Your task to perform on an android device: delete browsing data in the chrome app Image 0: 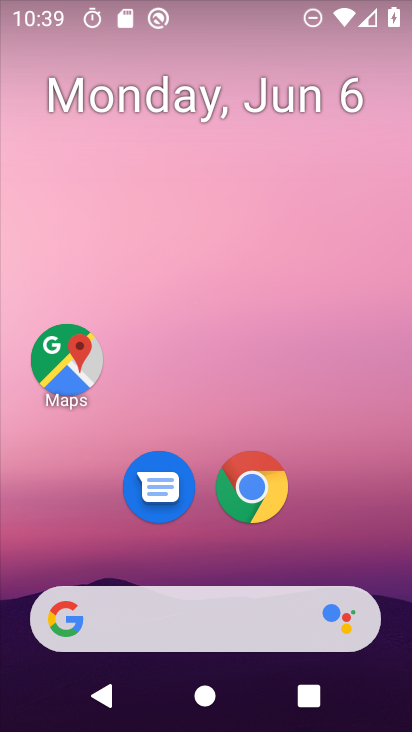
Step 0: drag from (384, 638) to (252, 78)
Your task to perform on an android device: delete browsing data in the chrome app Image 1: 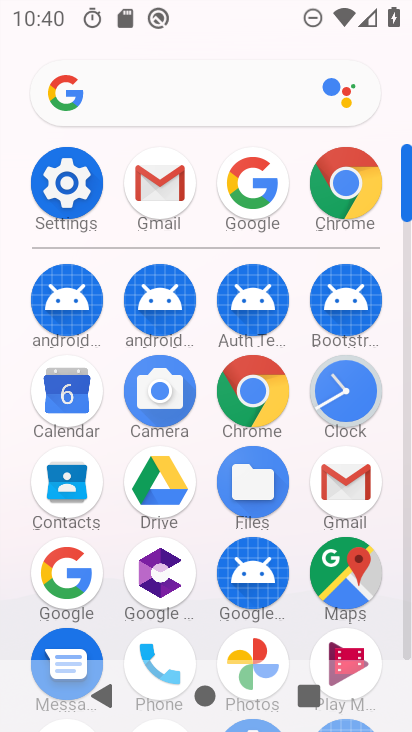
Step 1: click (227, 404)
Your task to perform on an android device: delete browsing data in the chrome app Image 2: 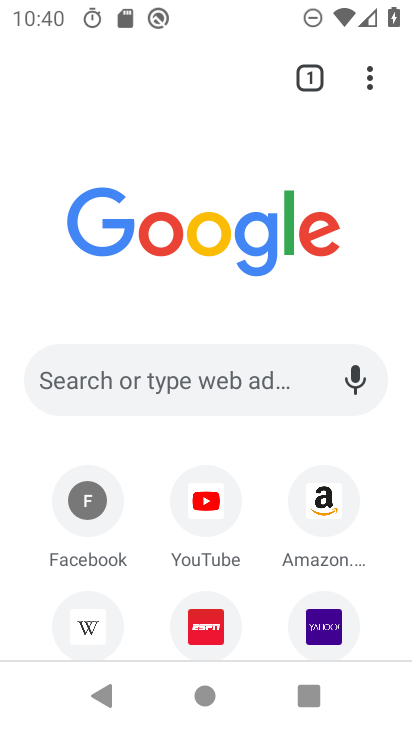
Step 2: click (368, 78)
Your task to perform on an android device: delete browsing data in the chrome app Image 3: 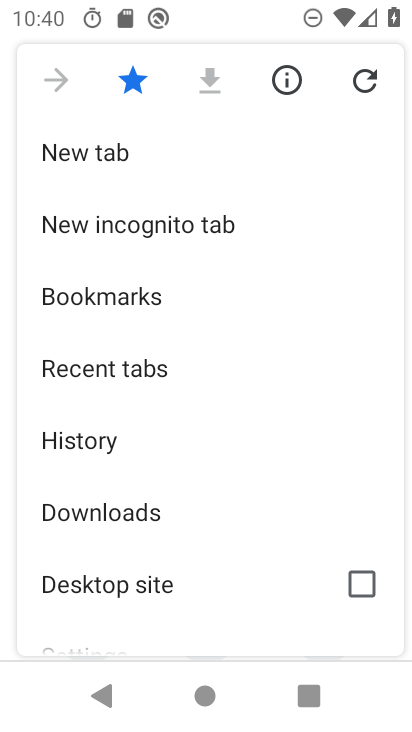
Step 3: drag from (161, 612) to (189, 152)
Your task to perform on an android device: delete browsing data in the chrome app Image 4: 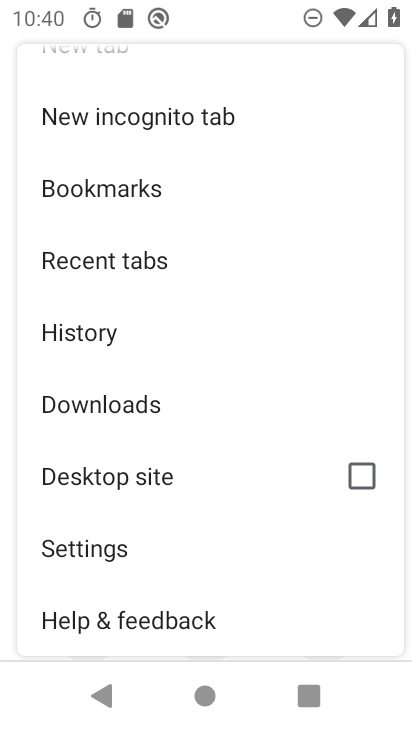
Step 4: click (149, 545)
Your task to perform on an android device: delete browsing data in the chrome app Image 5: 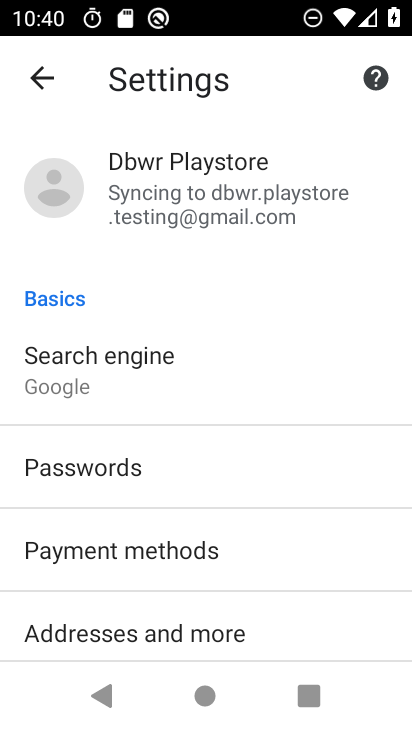
Step 5: drag from (184, 617) to (203, 195)
Your task to perform on an android device: delete browsing data in the chrome app Image 6: 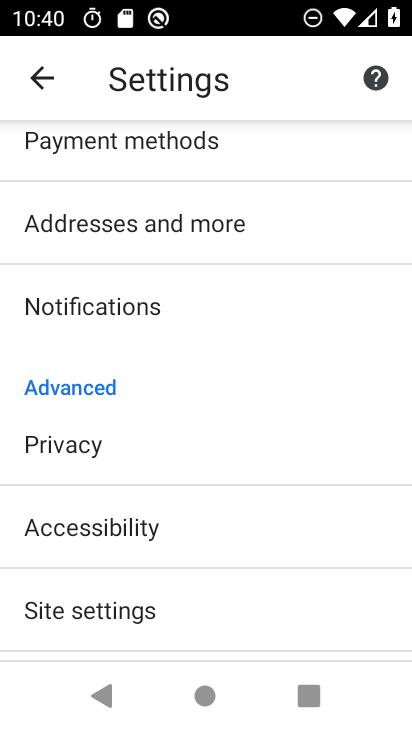
Step 6: drag from (148, 617) to (153, 238)
Your task to perform on an android device: delete browsing data in the chrome app Image 7: 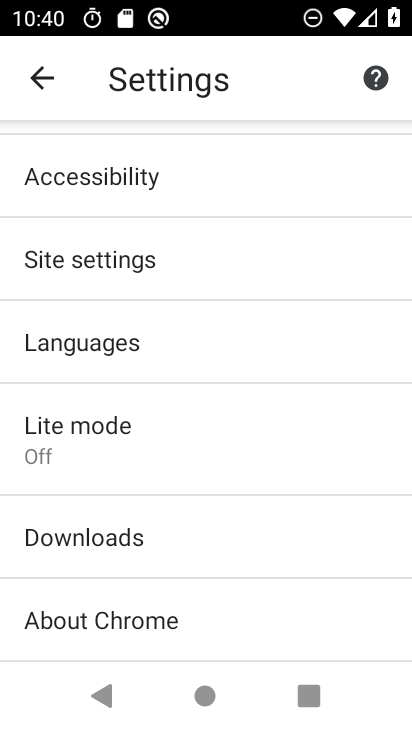
Step 7: press back button
Your task to perform on an android device: delete browsing data in the chrome app Image 8: 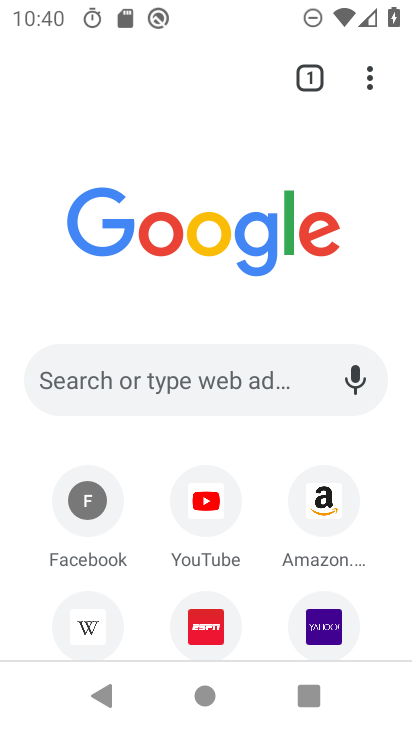
Step 8: click (372, 71)
Your task to perform on an android device: delete browsing data in the chrome app Image 9: 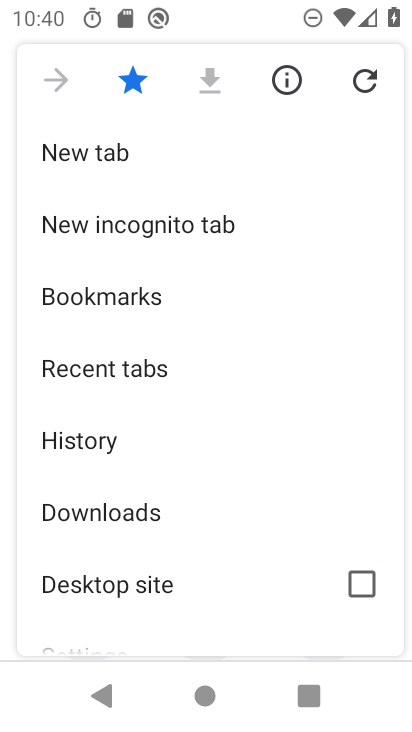
Step 9: click (154, 435)
Your task to perform on an android device: delete browsing data in the chrome app Image 10: 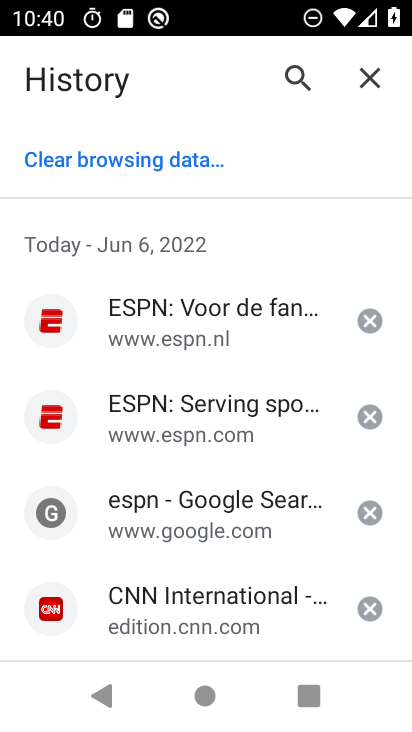
Step 10: click (156, 154)
Your task to perform on an android device: delete browsing data in the chrome app Image 11: 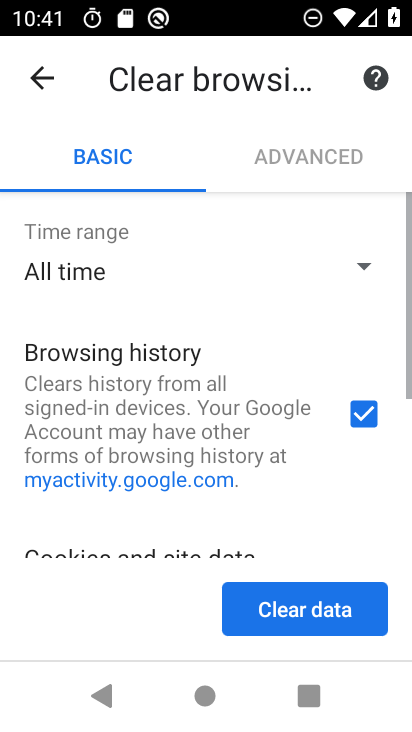
Step 11: click (327, 614)
Your task to perform on an android device: delete browsing data in the chrome app Image 12: 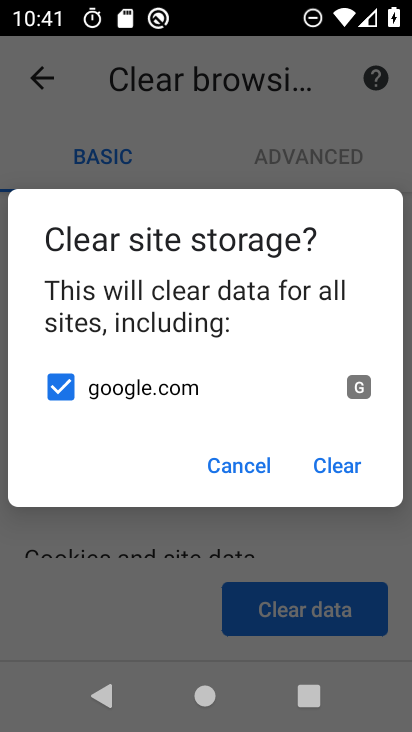
Step 12: click (335, 473)
Your task to perform on an android device: delete browsing data in the chrome app Image 13: 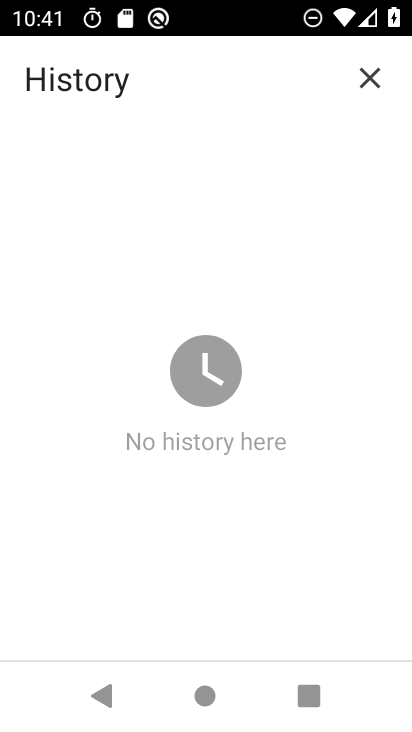
Step 13: task complete